Your task to perform on an android device: What's the weather going to be this weekend? Image 0: 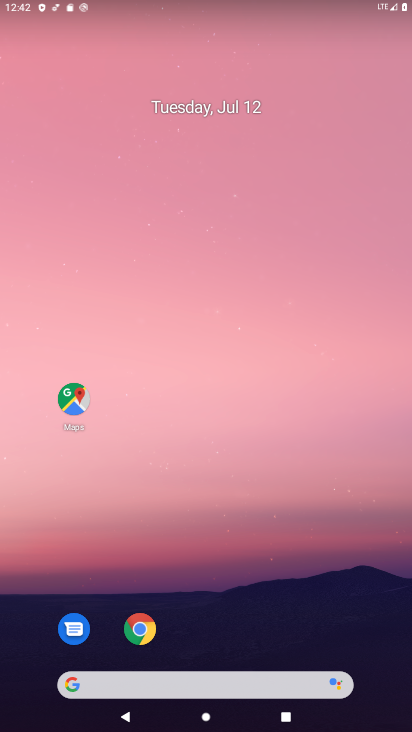
Step 0: click (112, 674)
Your task to perform on an android device: What's the weather going to be this weekend? Image 1: 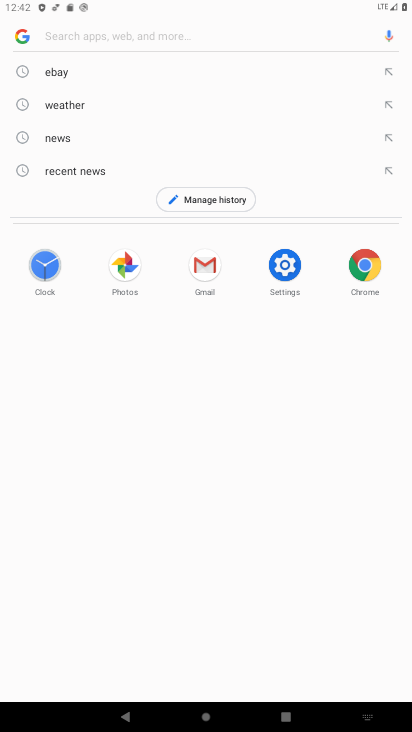
Step 1: type "What's the weather going to be this weekend?"
Your task to perform on an android device: What's the weather going to be this weekend? Image 2: 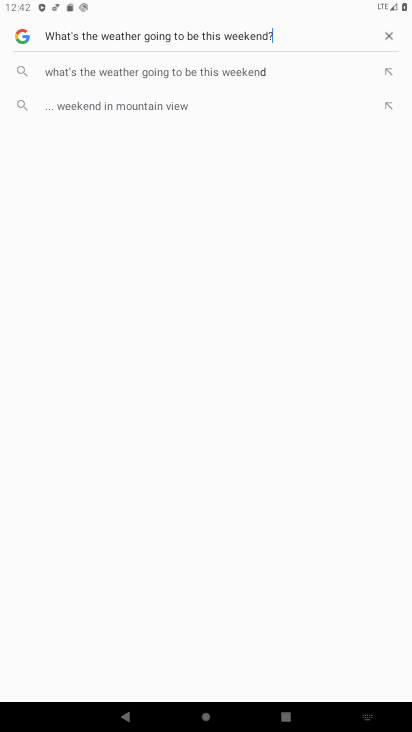
Step 2: type ""
Your task to perform on an android device: What's the weather going to be this weekend? Image 3: 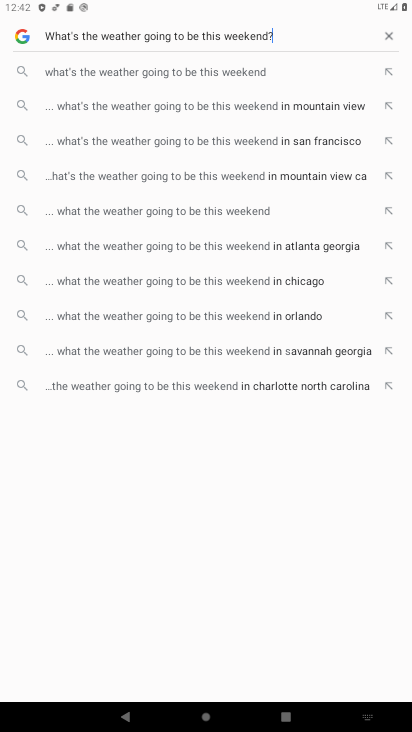
Step 3: type ""
Your task to perform on an android device: What's the weather going to be this weekend? Image 4: 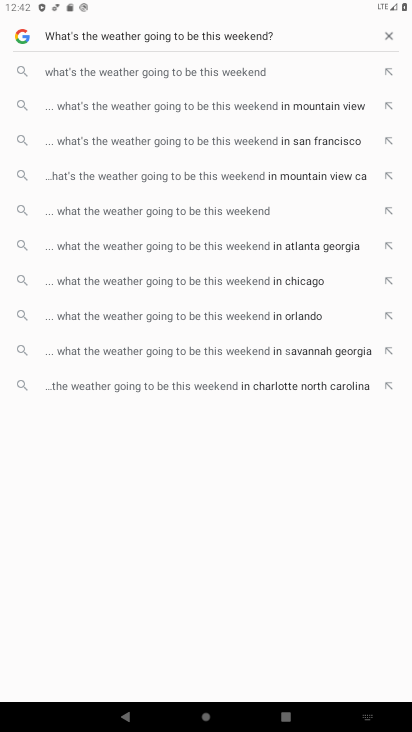
Step 4: type ""
Your task to perform on an android device: What's the weather going to be this weekend? Image 5: 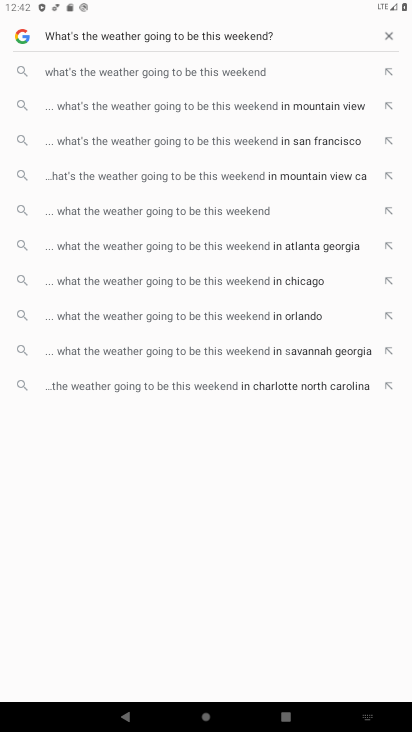
Step 5: task complete